Your task to perform on an android device: Open CNN.com Image 0: 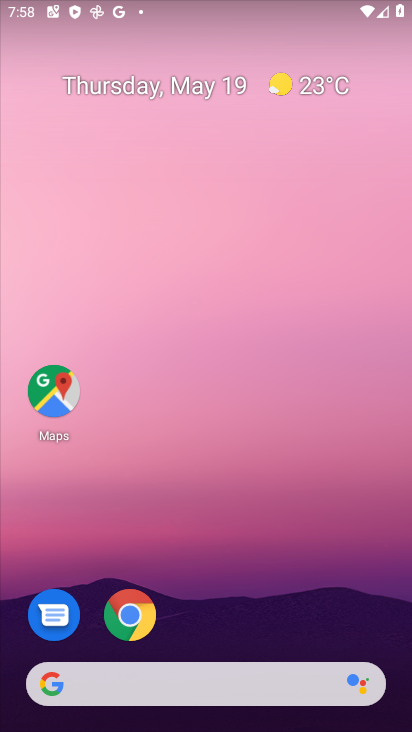
Step 0: drag from (367, 644) to (267, 23)
Your task to perform on an android device: Open CNN.com Image 1: 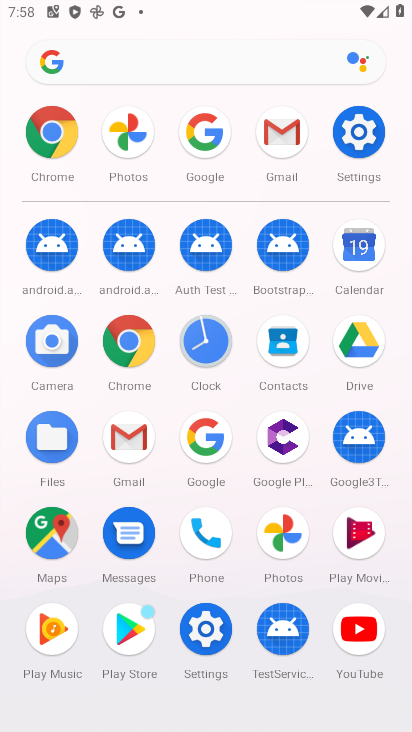
Step 1: click (200, 137)
Your task to perform on an android device: Open CNN.com Image 2: 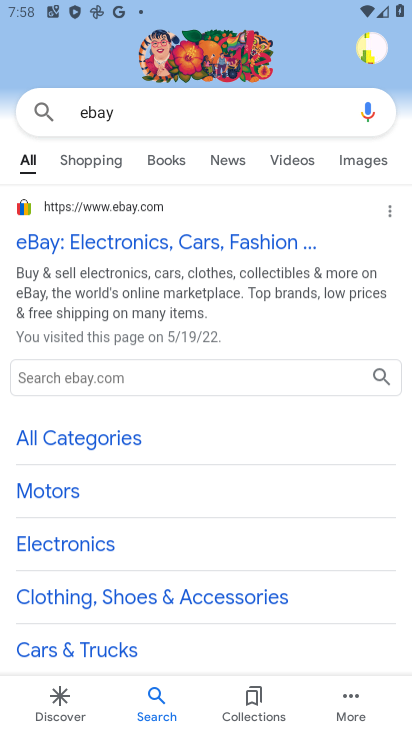
Step 2: press back button
Your task to perform on an android device: Open CNN.com Image 3: 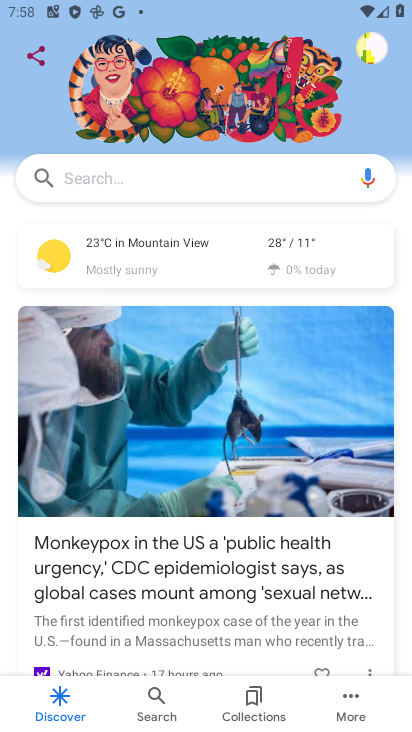
Step 3: click (139, 185)
Your task to perform on an android device: Open CNN.com Image 4: 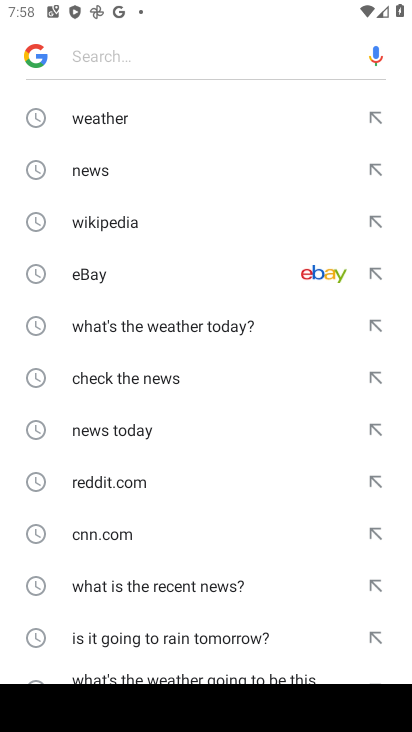
Step 4: click (167, 522)
Your task to perform on an android device: Open CNN.com Image 5: 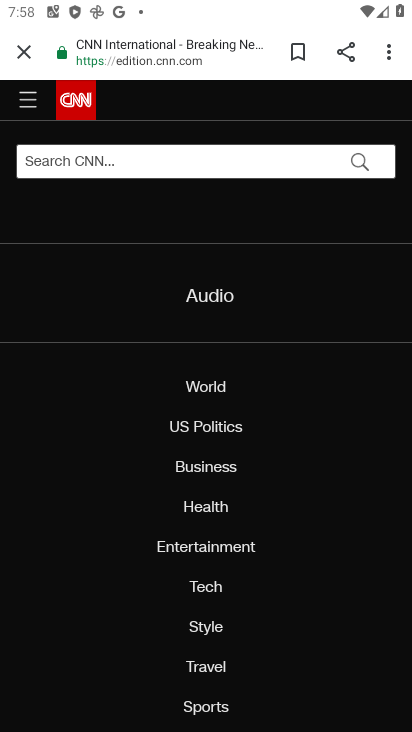
Step 5: task complete